Your task to perform on an android device: Go to Maps Image 0: 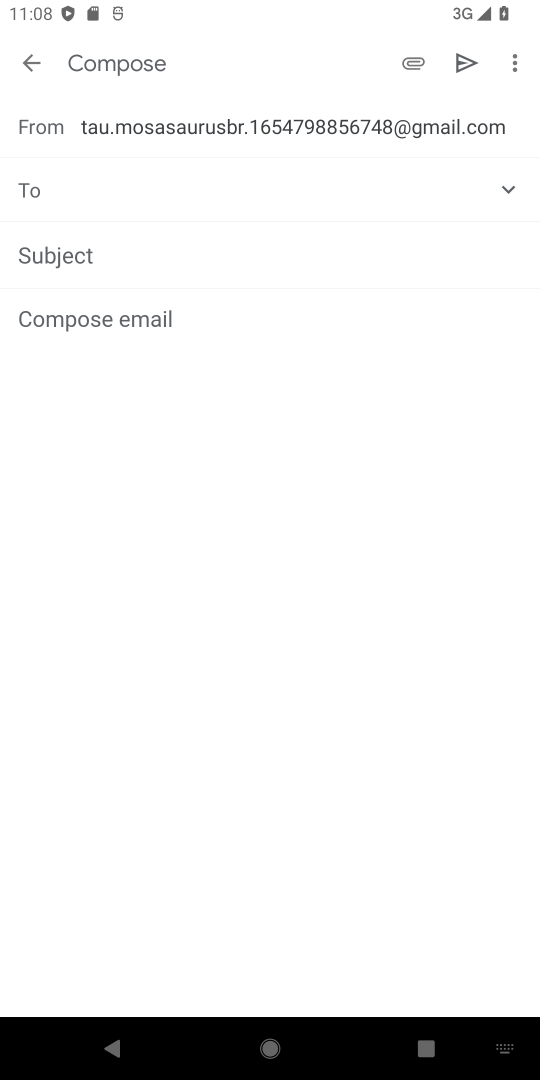
Step 0: press home button
Your task to perform on an android device: Go to Maps Image 1: 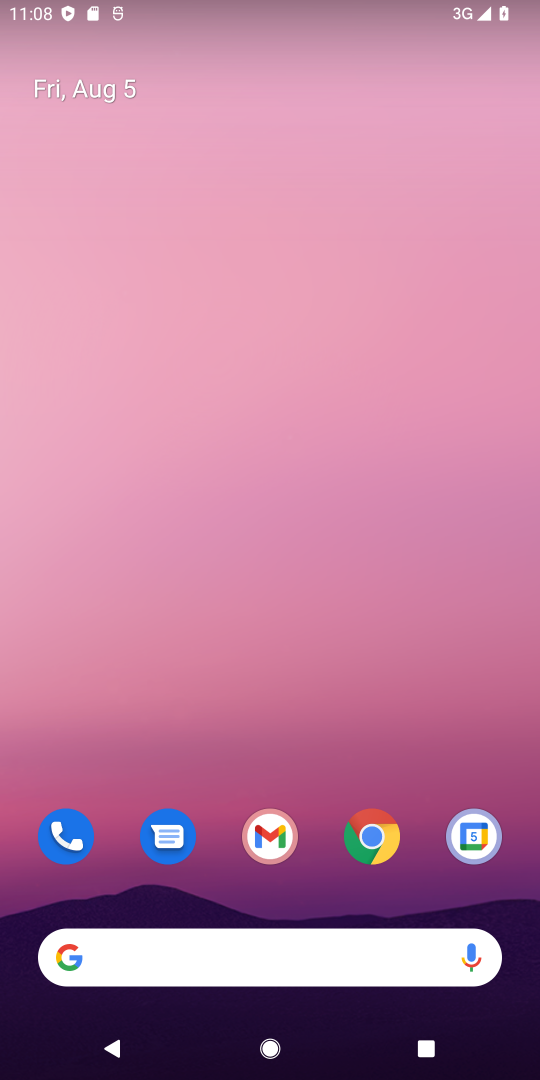
Step 1: drag from (332, 637) to (366, 158)
Your task to perform on an android device: Go to Maps Image 2: 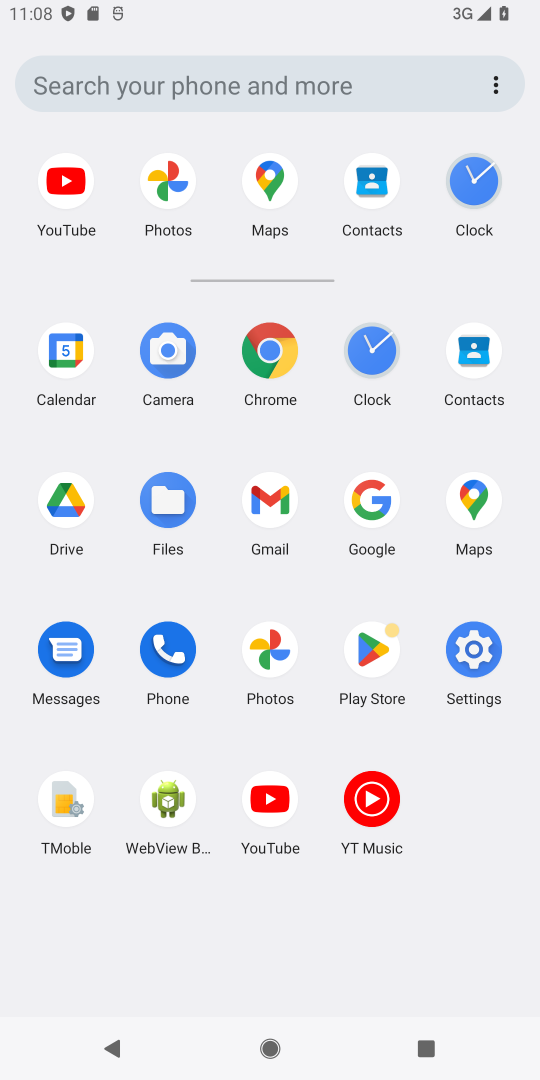
Step 2: click (464, 506)
Your task to perform on an android device: Go to Maps Image 3: 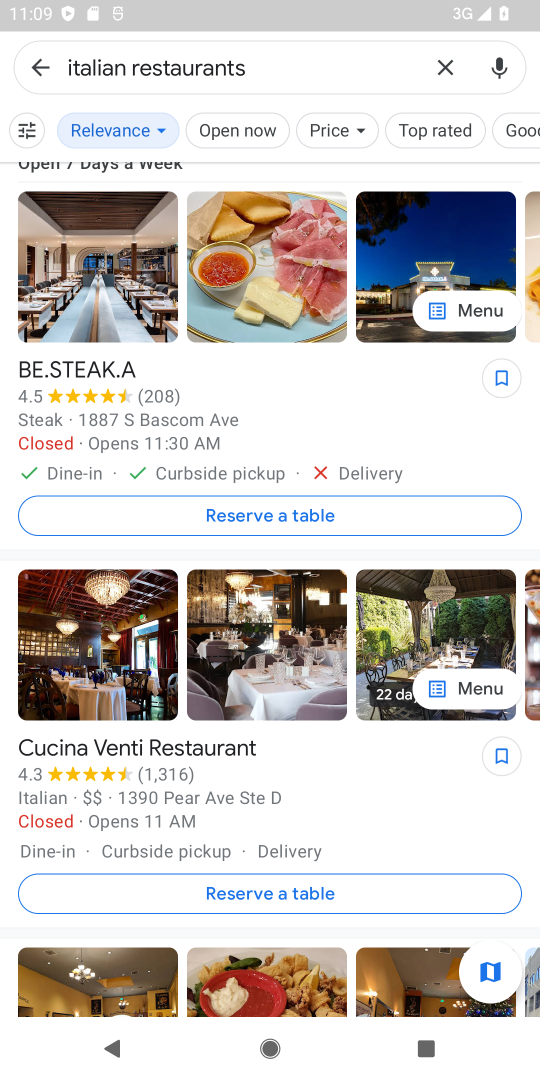
Step 3: task complete